Your task to perform on an android device: find snoozed emails in the gmail app Image 0: 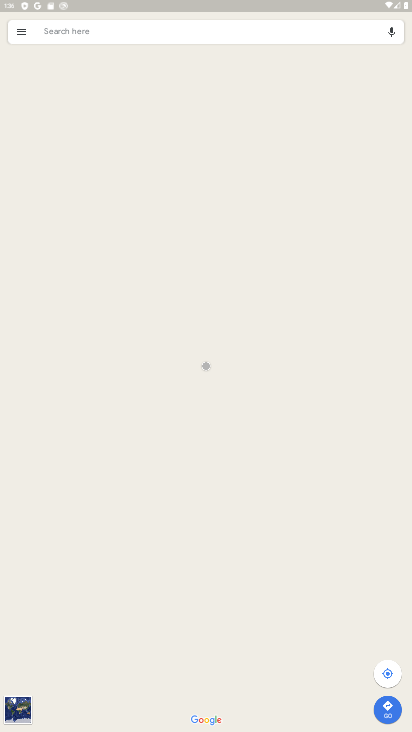
Step 0: press home button
Your task to perform on an android device: find snoozed emails in the gmail app Image 1: 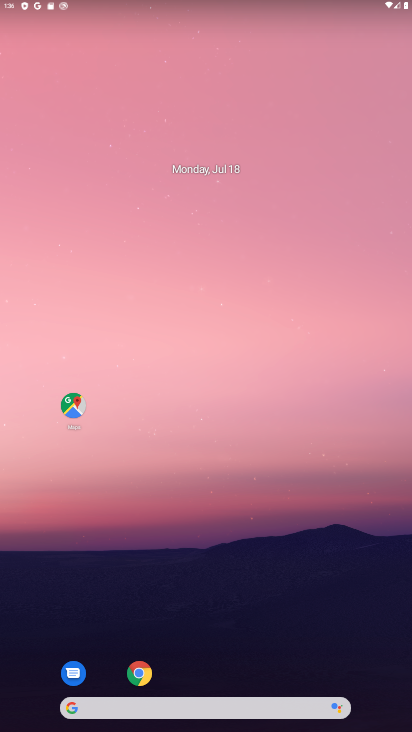
Step 1: drag from (190, 710) to (374, 77)
Your task to perform on an android device: find snoozed emails in the gmail app Image 2: 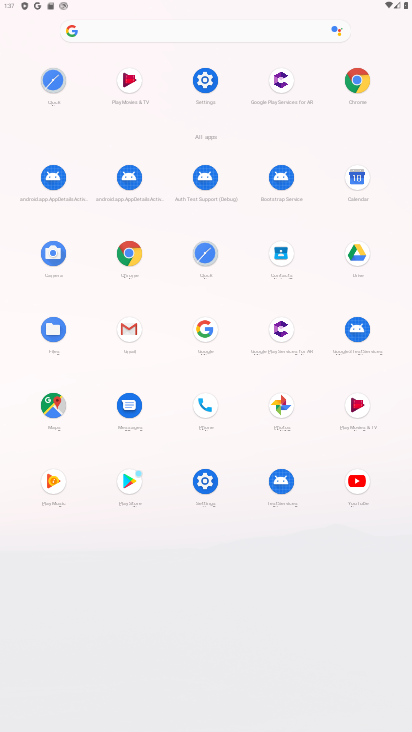
Step 2: click (130, 327)
Your task to perform on an android device: find snoozed emails in the gmail app Image 3: 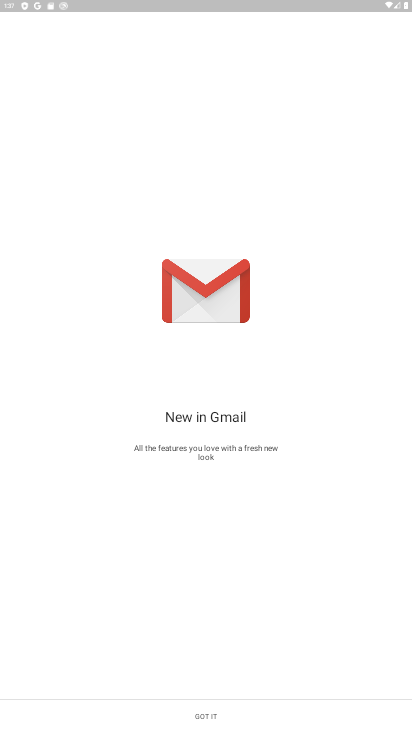
Step 3: click (212, 716)
Your task to perform on an android device: find snoozed emails in the gmail app Image 4: 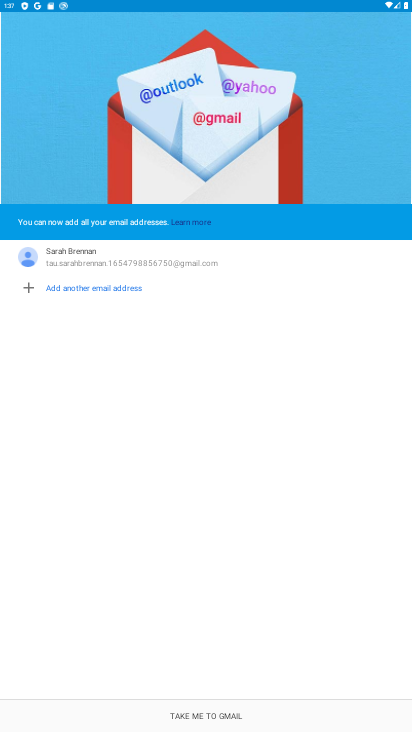
Step 4: click (212, 716)
Your task to perform on an android device: find snoozed emails in the gmail app Image 5: 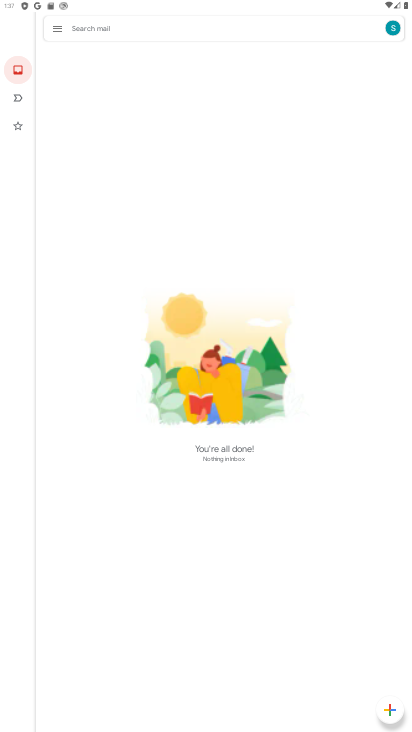
Step 5: click (56, 32)
Your task to perform on an android device: find snoozed emails in the gmail app Image 6: 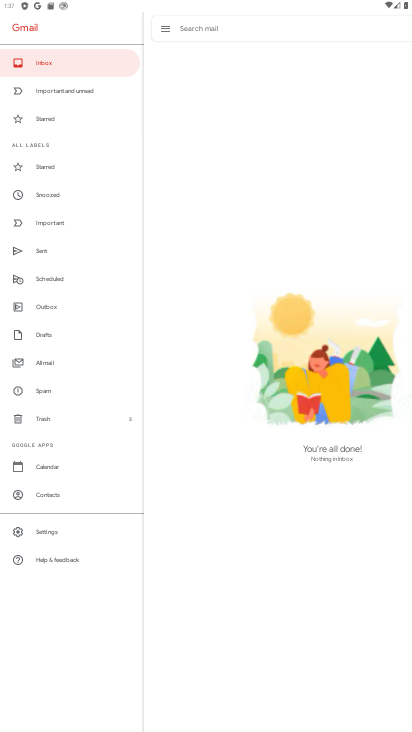
Step 6: click (55, 197)
Your task to perform on an android device: find snoozed emails in the gmail app Image 7: 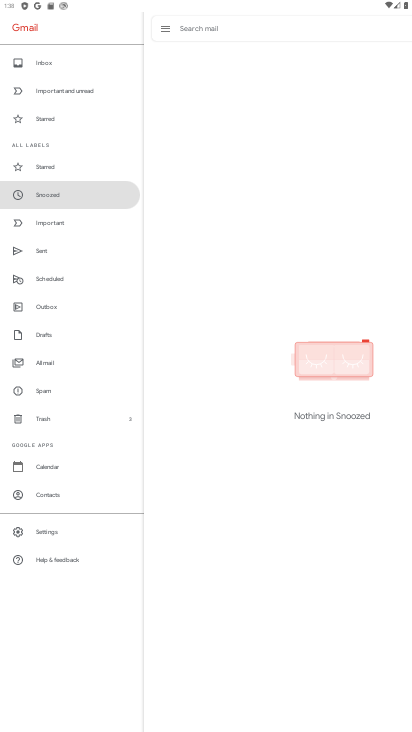
Step 7: task complete